Your task to perform on an android device: show emergency info Image 0: 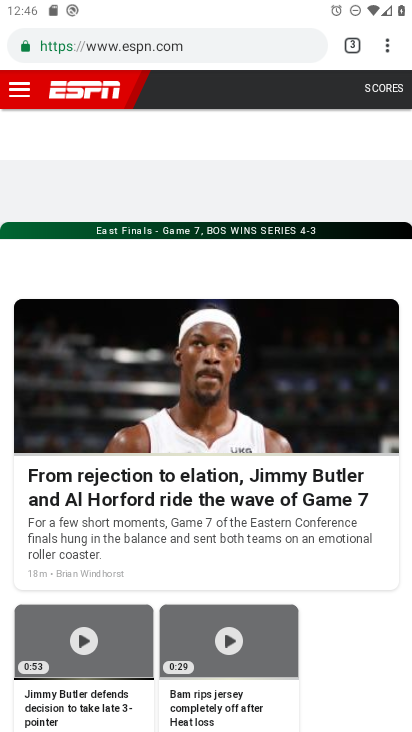
Step 0: press home button
Your task to perform on an android device: show emergency info Image 1: 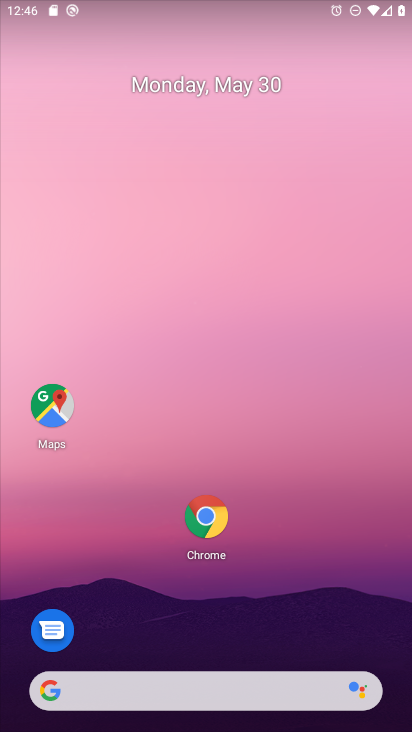
Step 1: drag from (155, 699) to (272, 168)
Your task to perform on an android device: show emergency info Image 2: 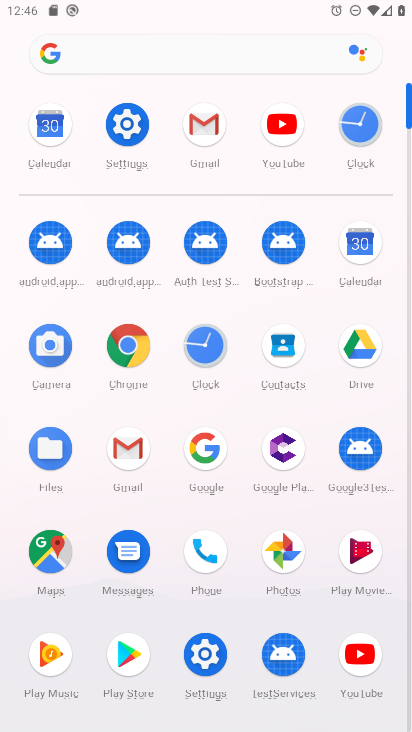
Step 2: click (124, 123)
Your task to perform on an android device: show emergency info Image 3: 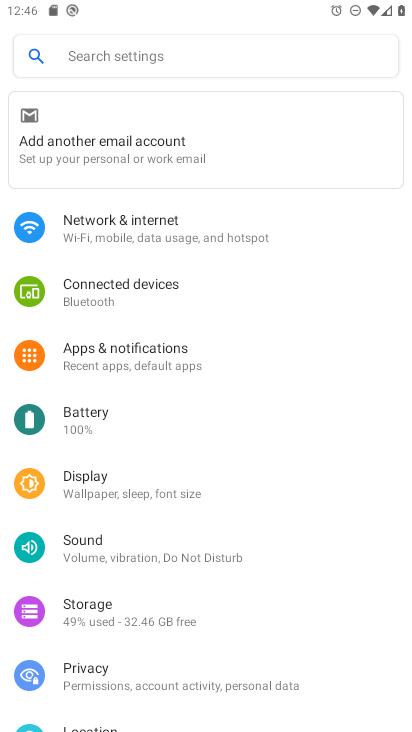
Step 3: drag from (230, 655) to (267, 94)
Your task to perform on an android device: show emergency info Image 4: 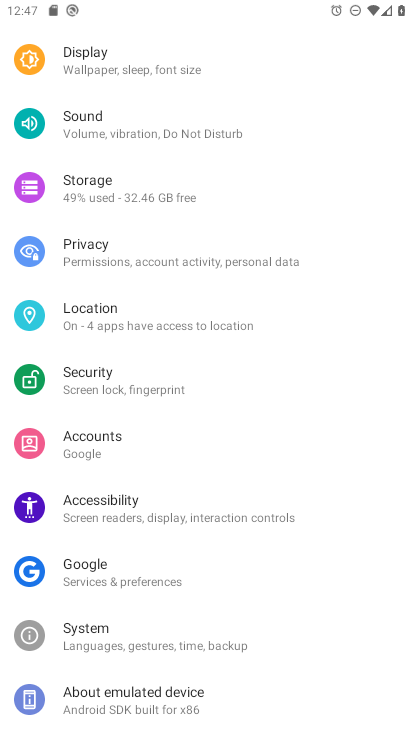
Step 4: click (129, 706)
Your task to perform on an android device: show emergency info Image 5: 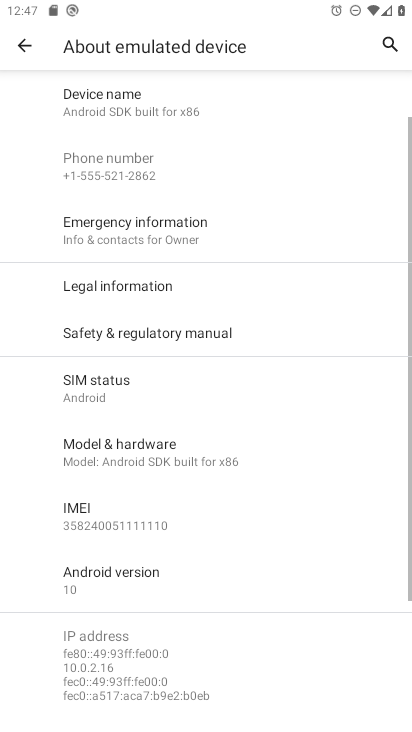
Step 5: click (149, 228)
Your task to perform on an android device: show emergency info Image 6: 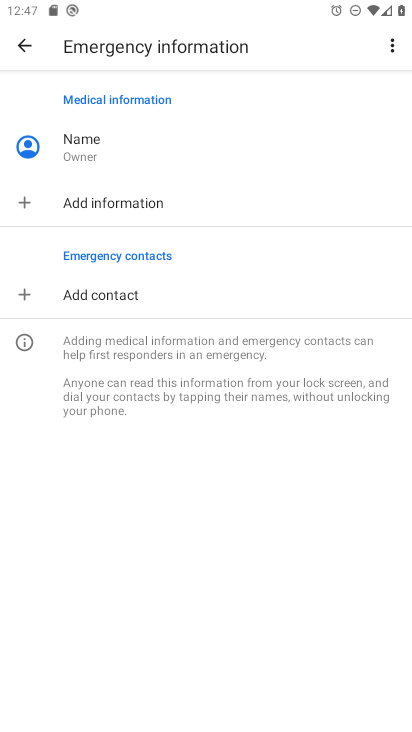
Step 6: task complete